Your task to perform on an android device: change keyboard looks Image 0: 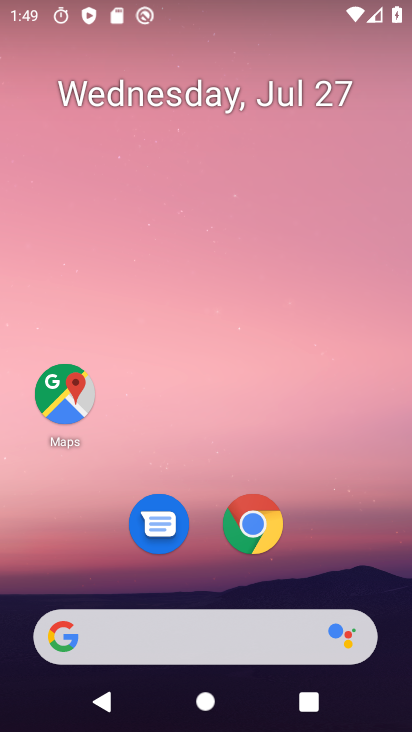
Step 0: drag from (337, 511) to (328, 46)
Your task to perform on an android device: change keyboard looks Image 1: 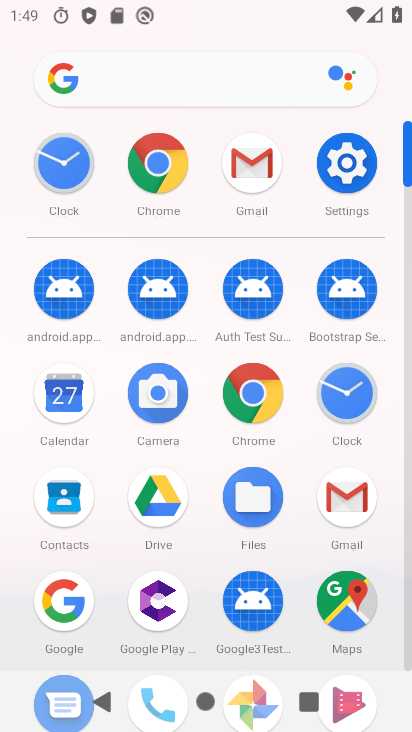
Step 1: click (350, 155)
Your task to perform on an android device: change keyboard looks Image 2: 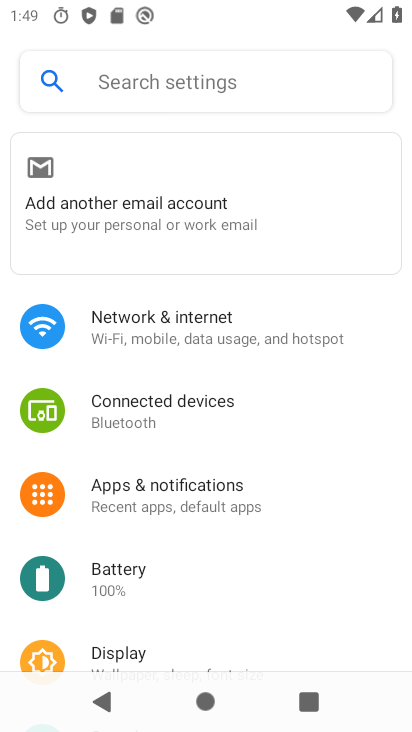
Step 2: drag from (241, 565) to (285, 93)
Your task to perform on an android device: change keyboard looks Image 3: 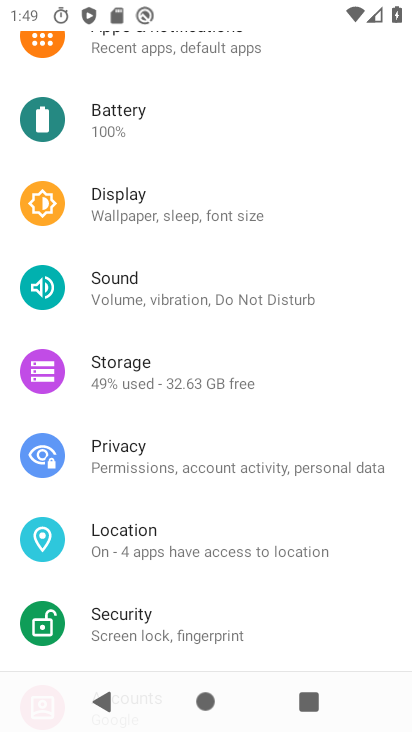
Step 3: drag from (233, 616) to (228, 104)
Your task to perform on an android device: change keyboard looks Image 4: 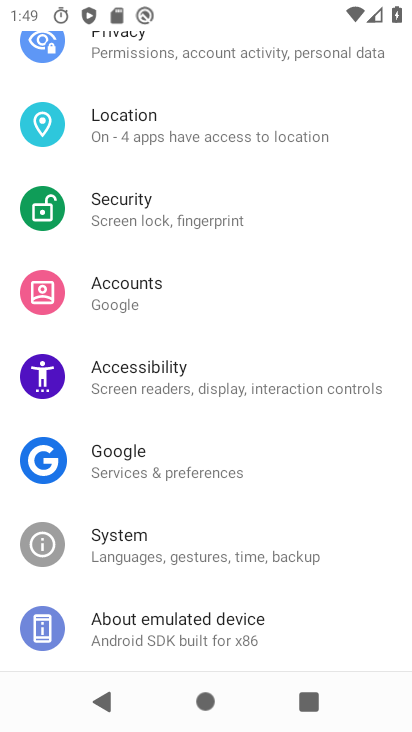
Step 4: click (215, 545)
Your task to perform on an android device: change keyboard looks Image 5: 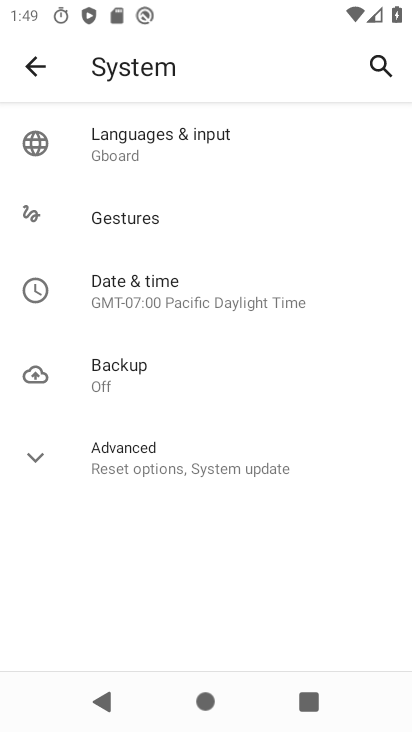
Step 5: click (33, 452)
Your task to perform on an android device: change keyboard looks Image 6: 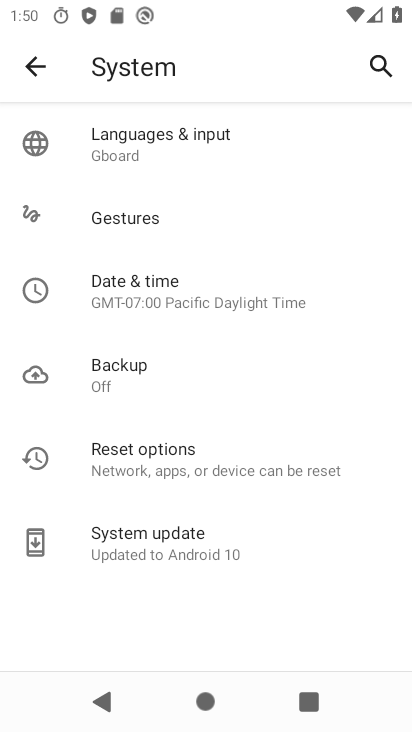
Step 6: drag from (232, 250) to (246, 489)
Your task to perform on an android device: change keyboard looks Image 7: 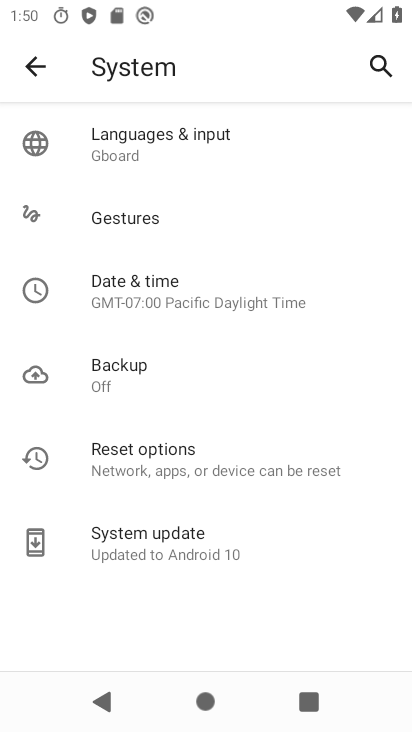
Step 7: click (106, 135)
Your task to perform on an android device: change keyboard looks Image 8: 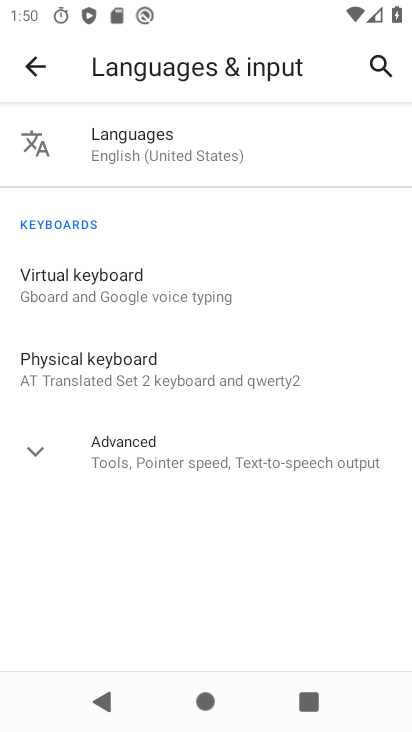
Step 8: click (129, 280)
Your task to perform on an android device: change keyboard looks Image 9: 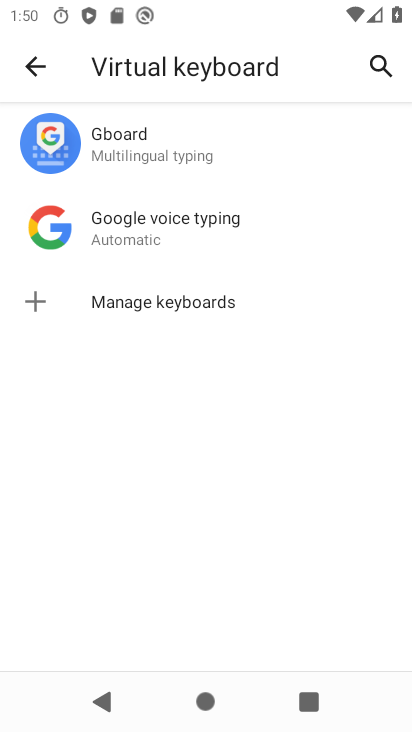
Step 9: click (140, 140)
Your task to perform on an android device: change keyboard looks Image 10: 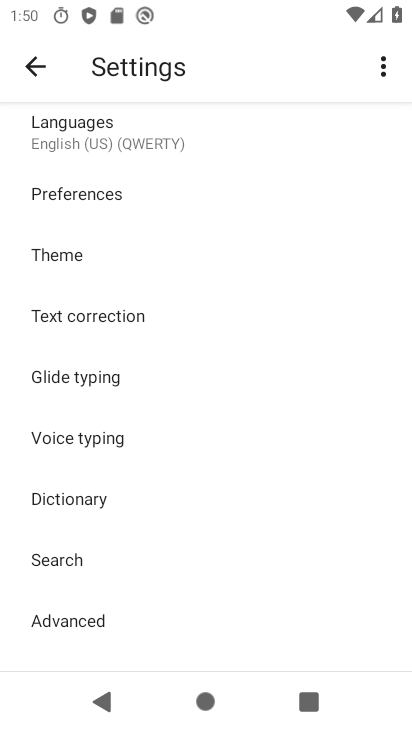
Step 10: click (62, 246)
Your task to perform on an android device: change keyboard looks Image 11: 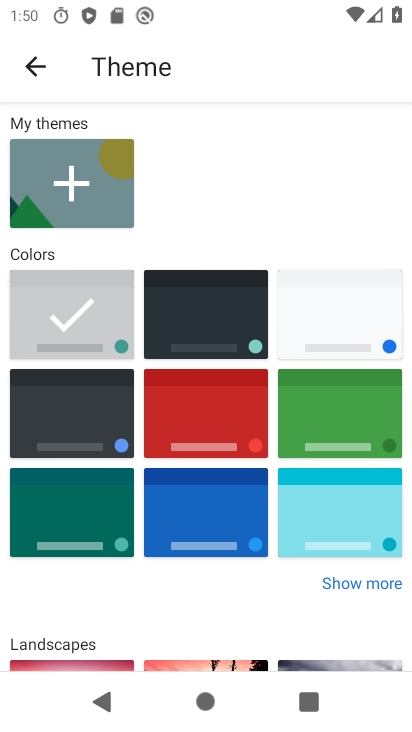
Step 11: click (195, 413)
Your task to perform on an android device: change keyboard looks Image 12: 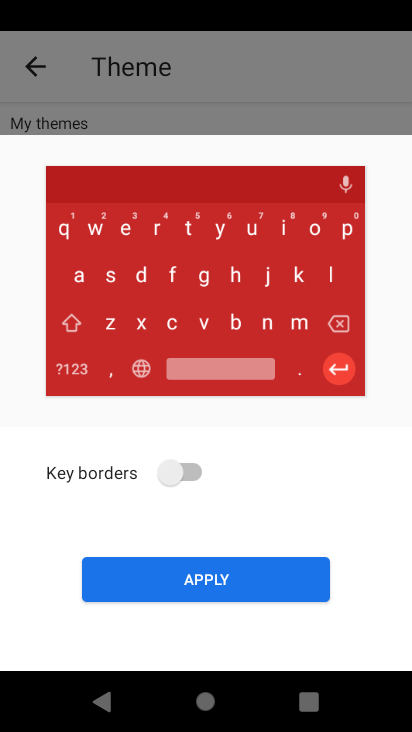
Step 12: click (195, 476)
Your task to perform on an android device: change keyboard looks Image 13: 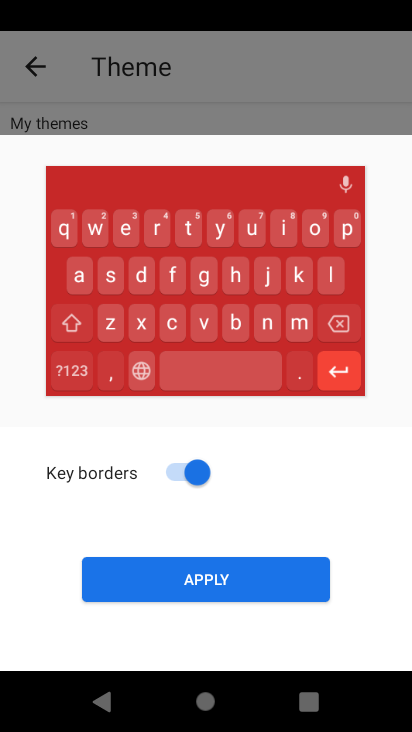
Step 13: click (217, 575)
Your task to perform on an android device: change keyboard looks Image 14: 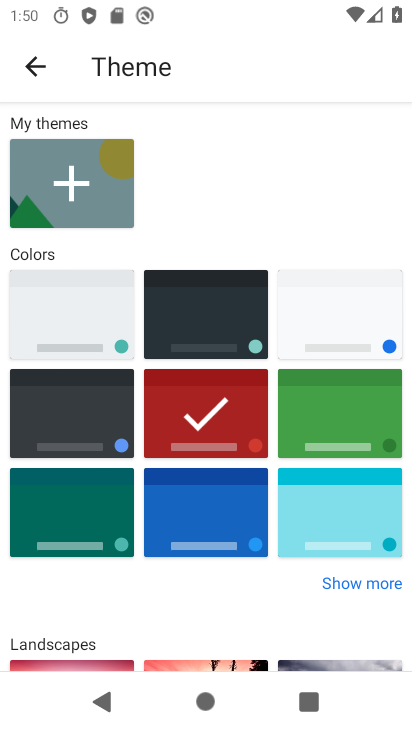
Step 14: task complete